Your task to perform on an android device: check storage Image 0: 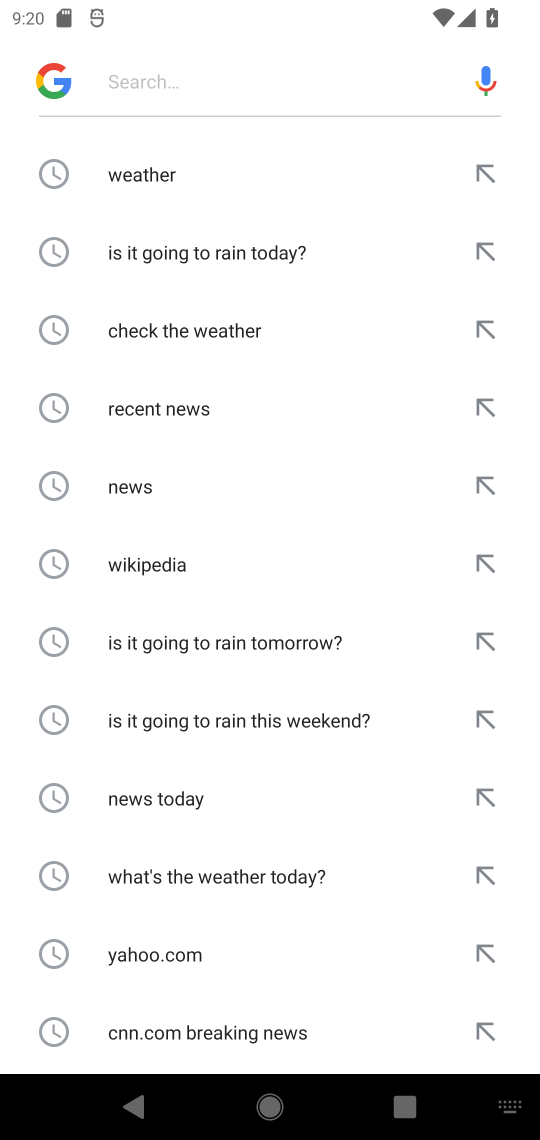
Step 0: press home button
Your task to perform on an android device: check storage Image 1: 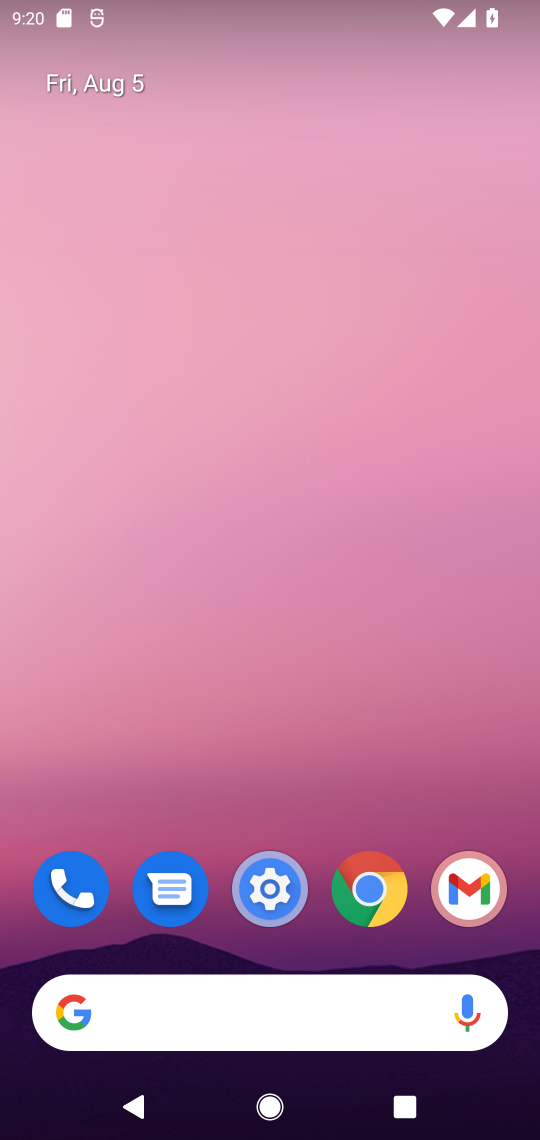
Step 1: drag from (305, 921) to (310, 275)
Your task to perform on an android device: check storage Image 2: 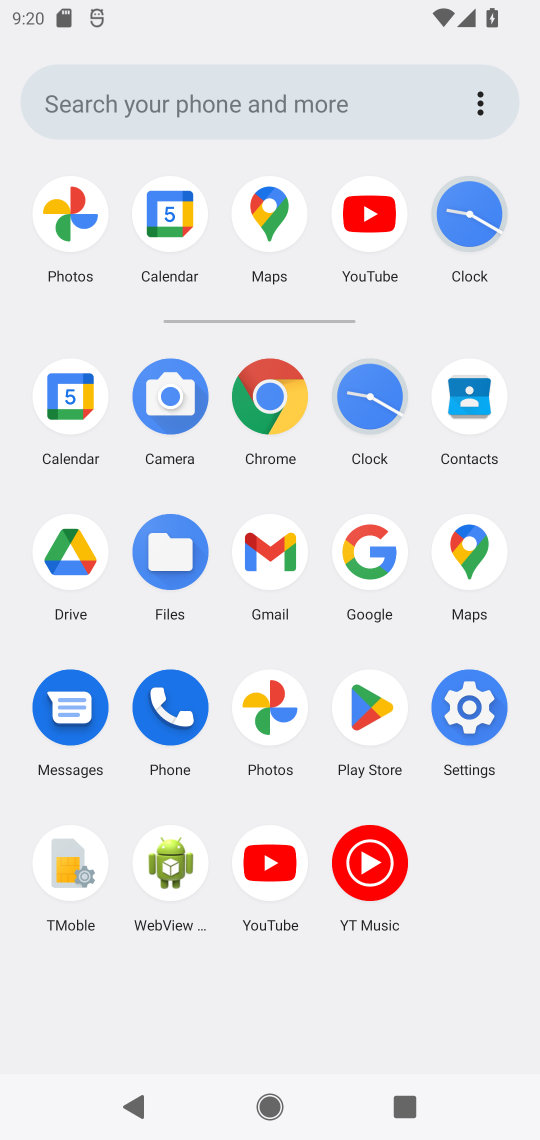
Step 2: click (452, 694)
Your task to perform on an android device: check storage Image 3: 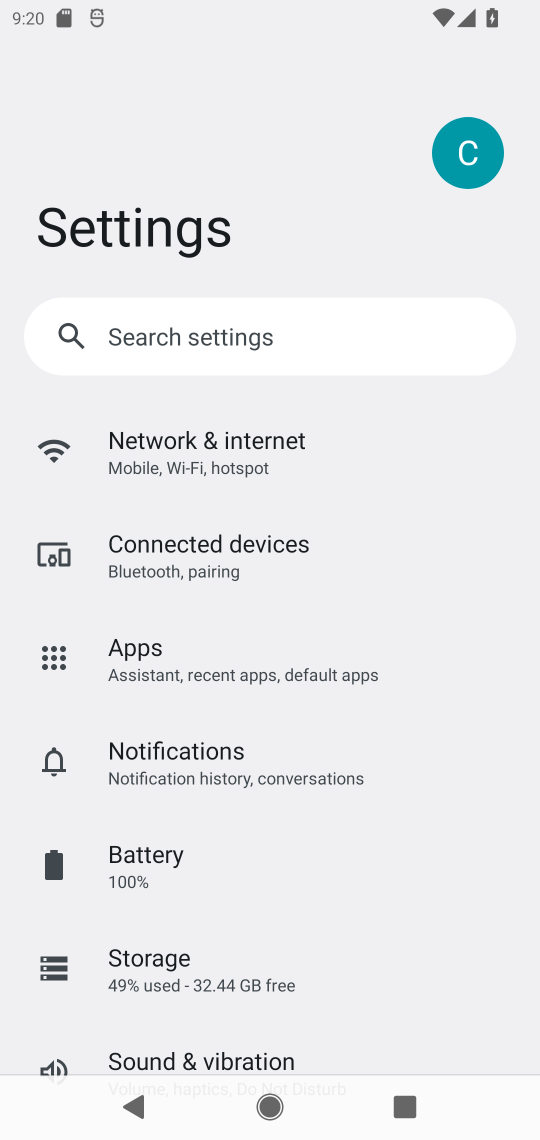
Step 3: click (227, 964)
Your task to perform on an android device: check storage Image 4: 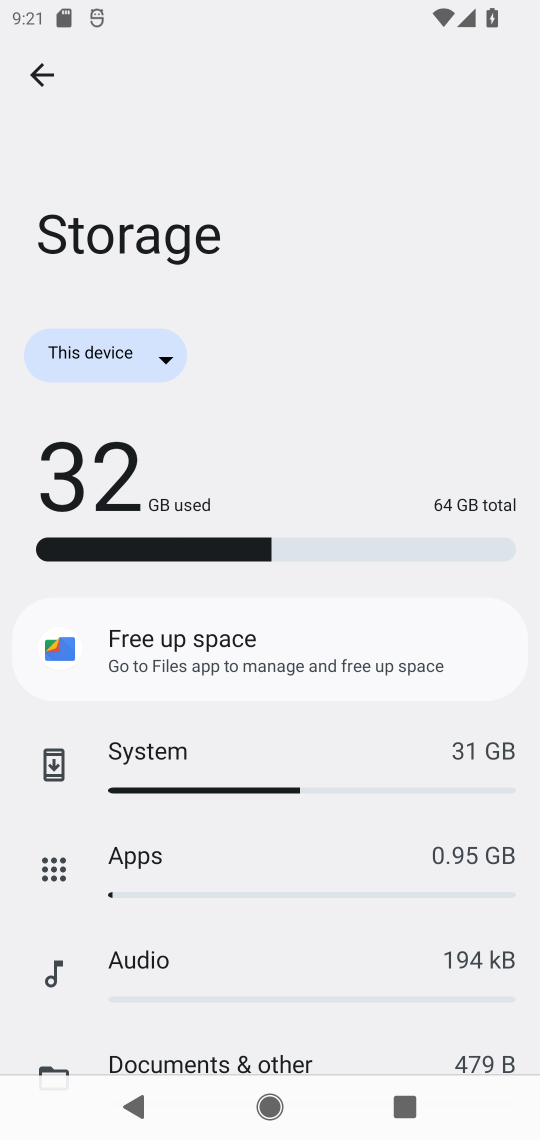
Step 4: task complete